Your task to perform on an android device: change the clock display to digital Image 0: 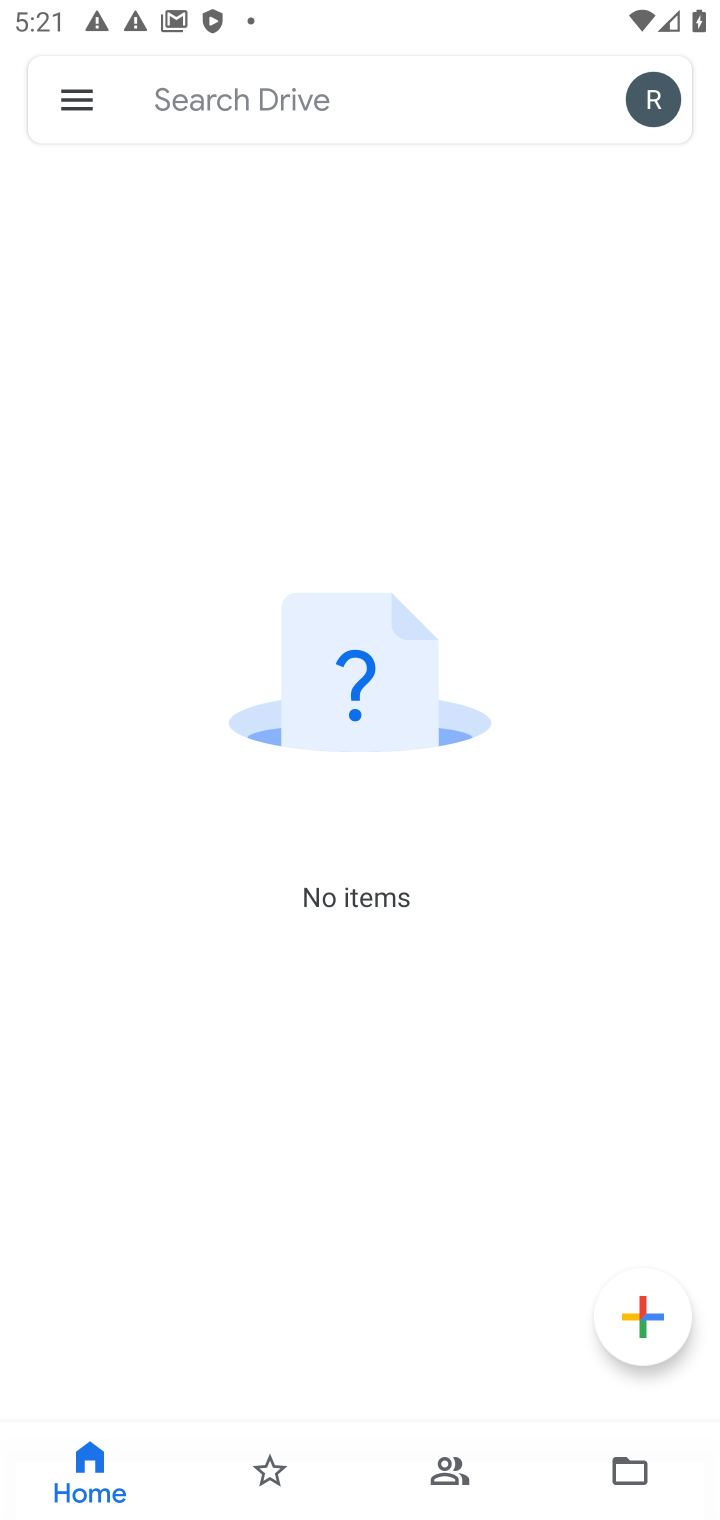
Step 0: press home button
Your task to perform on an android device: change the clock display to digital Image 1: 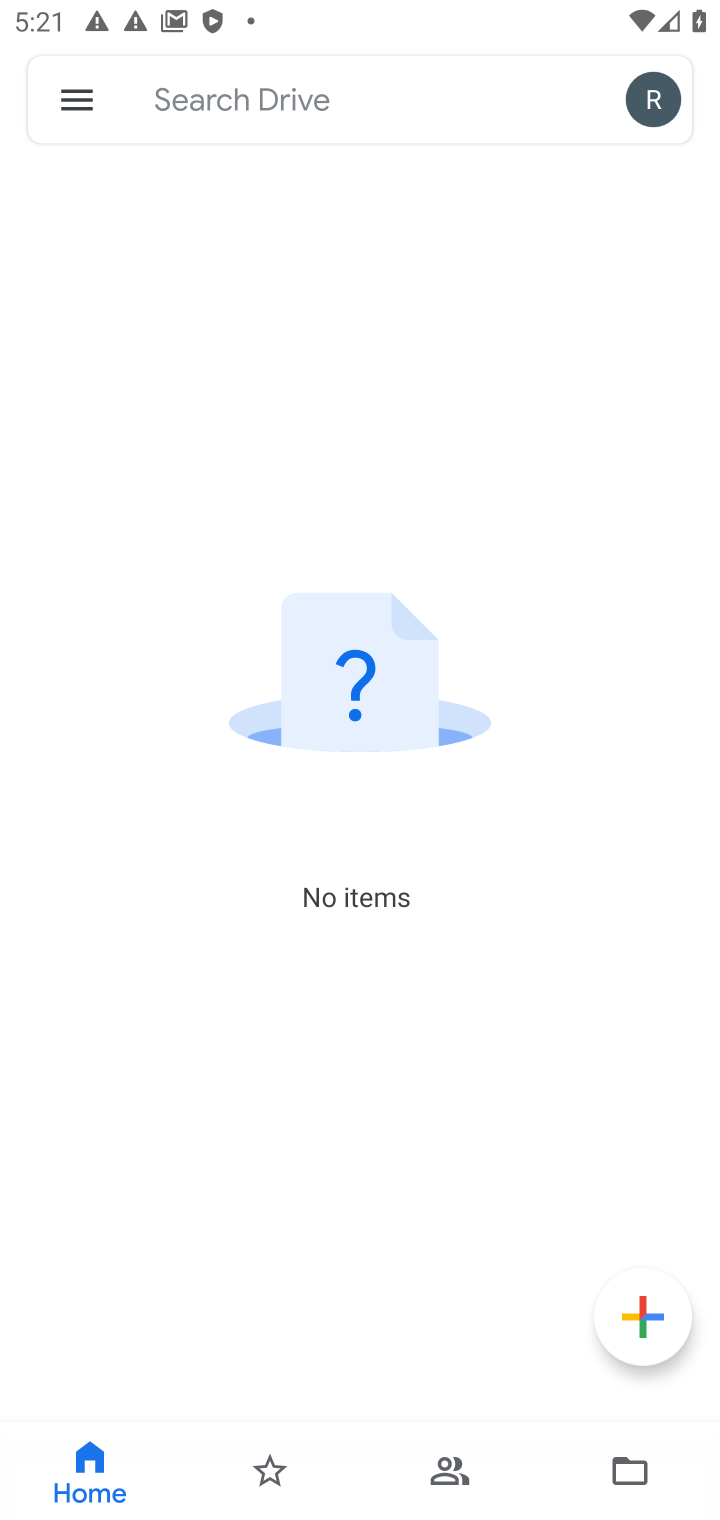
Step 1: press home button
Your task to perform on an android device: change the clock display to digital Image 2: 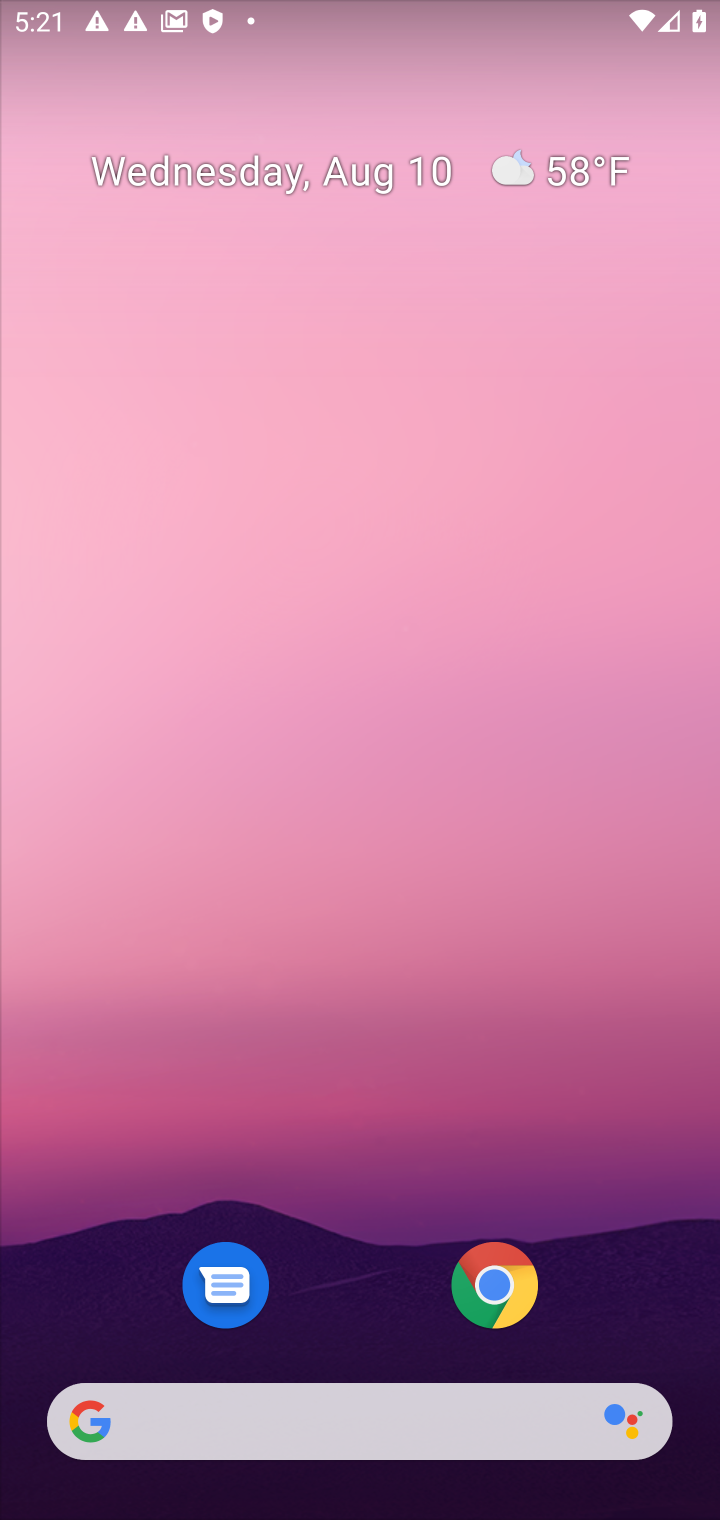
Step 2: drag from (377, 1245) to (296, 15)
Your task to perform on an android device: change the clock display to digital Image 3: 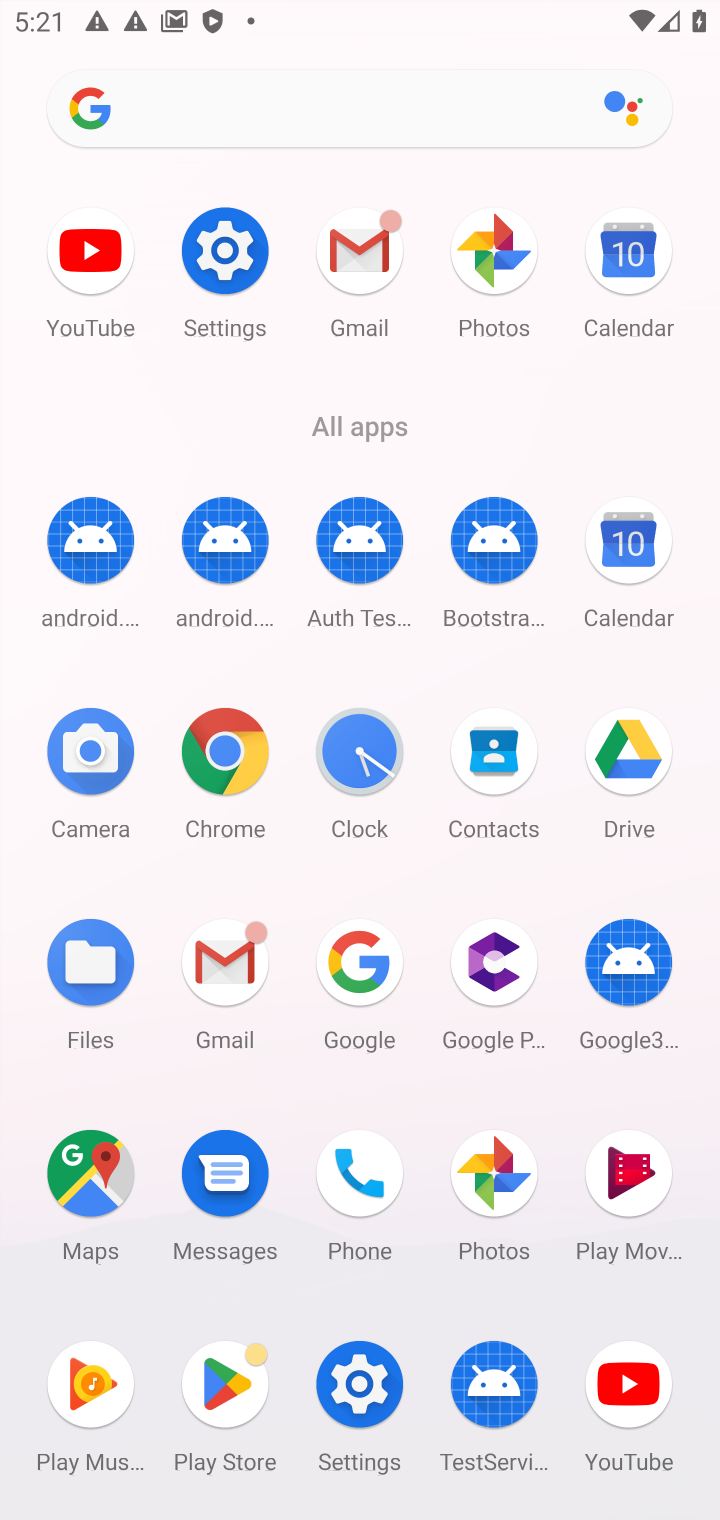
Step 3: click (370, 832)
Your task to perform on an android device: change the clock display to digital Image 4: 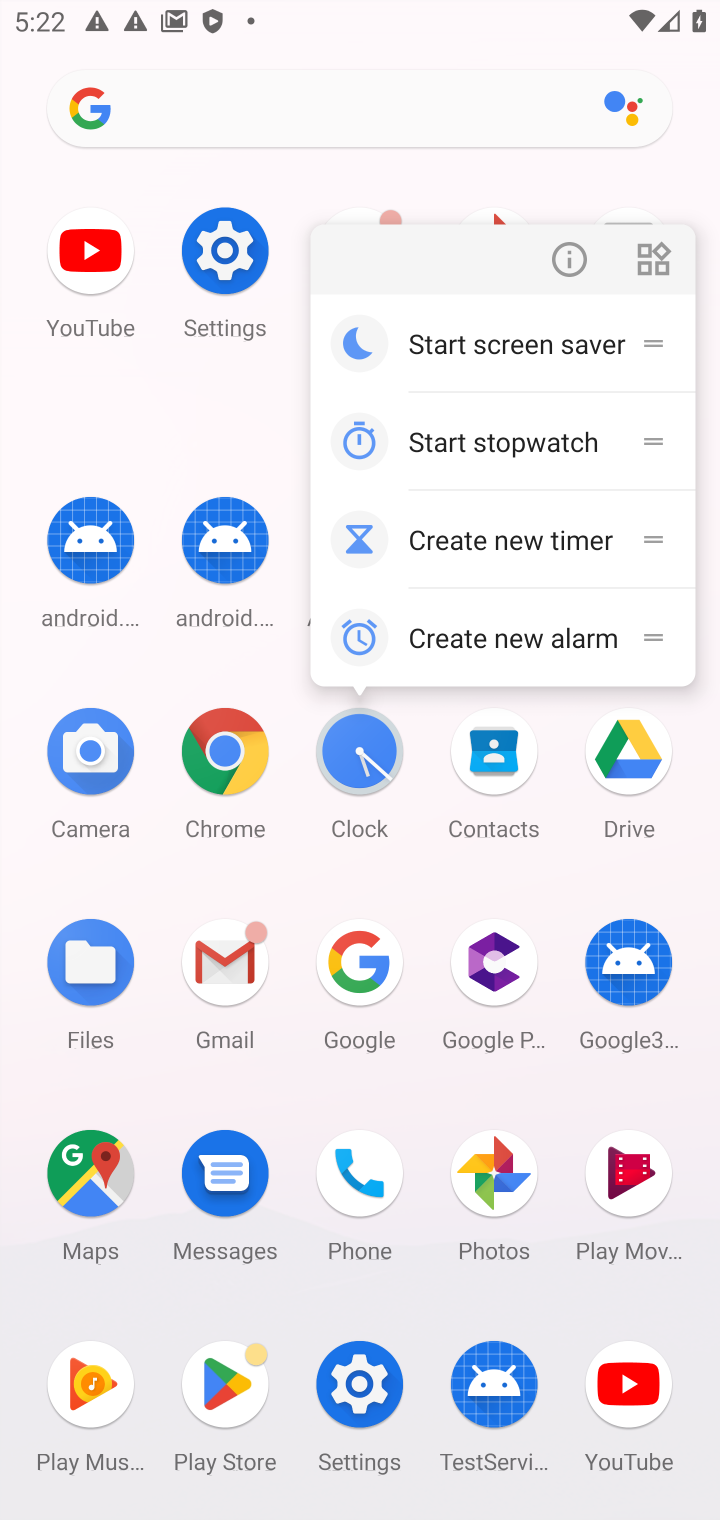
Step 4: click (313, 779)
Your task to perform on an android device: change the clock display to digital Image 5: 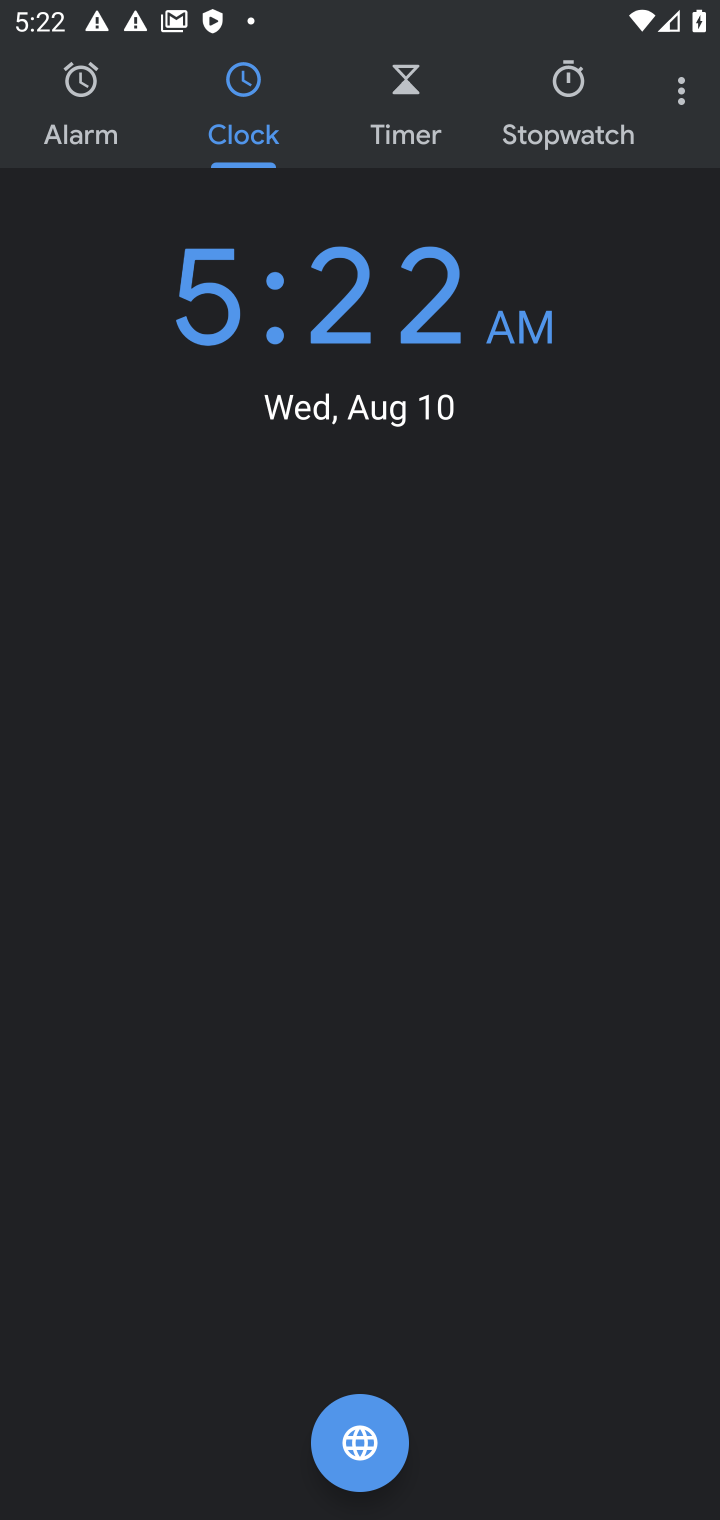
Step 5: click (676, 116)
Your task to perform on an android device: change the clock display to digital Image 6: 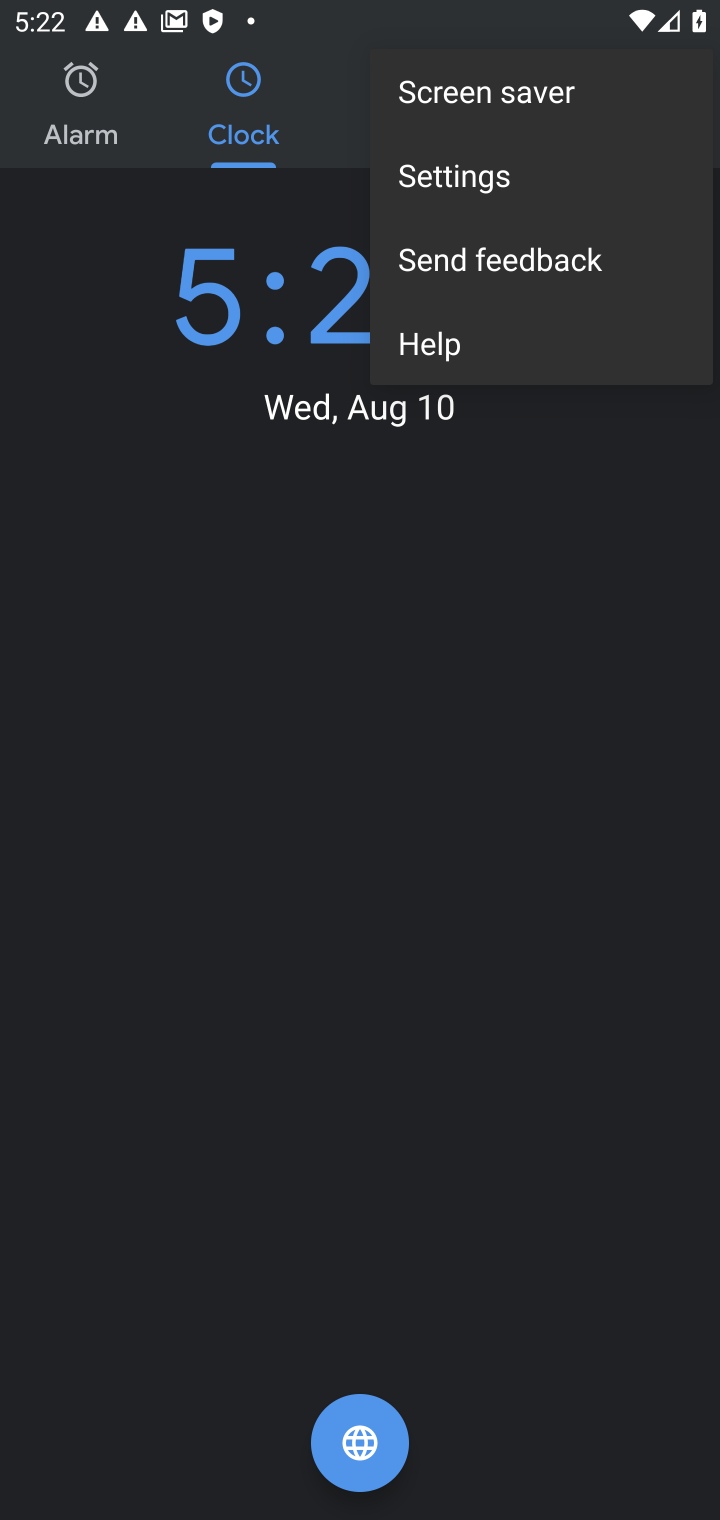
Step 6: click (416, 209)
Your task to perform on an android device: change the clock display to digital Image 7: 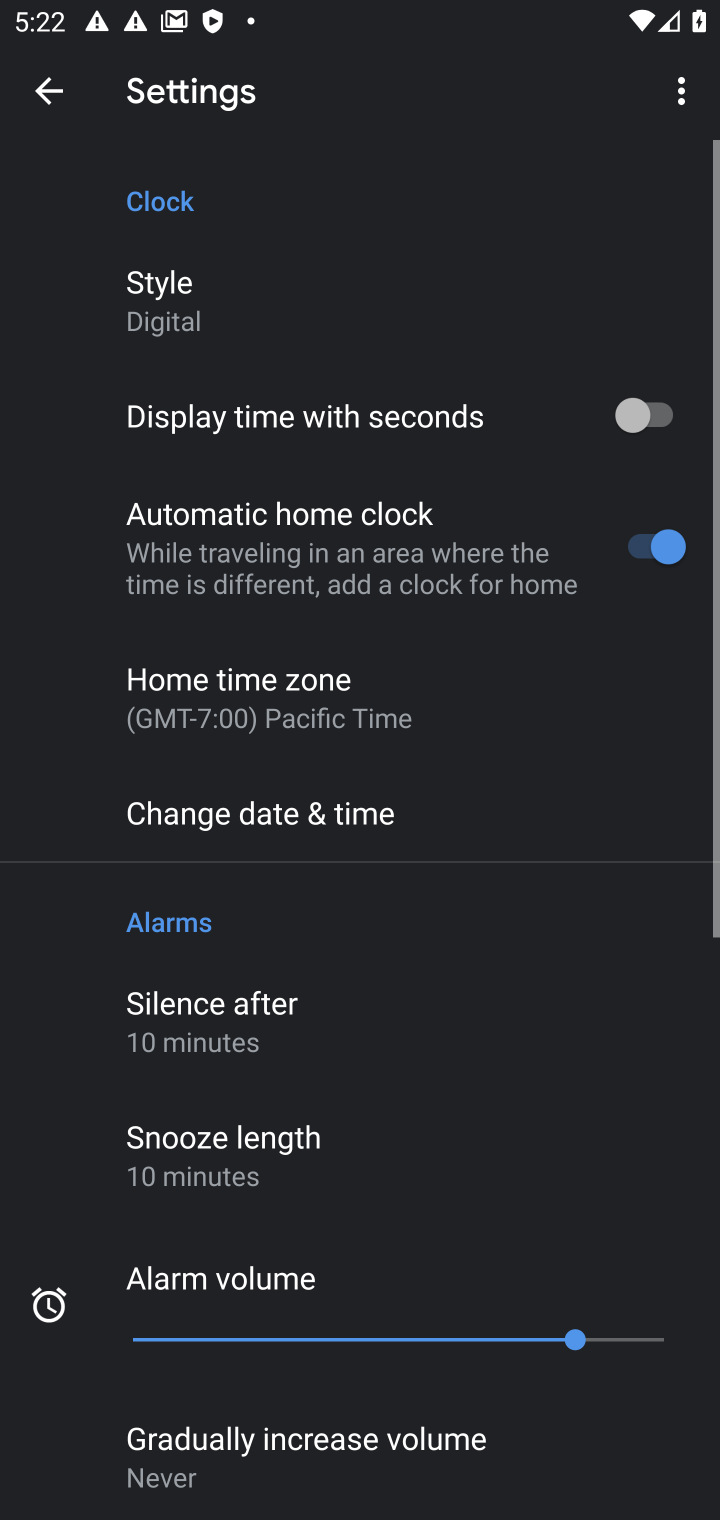
Step 7: click (196, 330)
Your task to perform on an android device: change the clock display to digital Image 8: 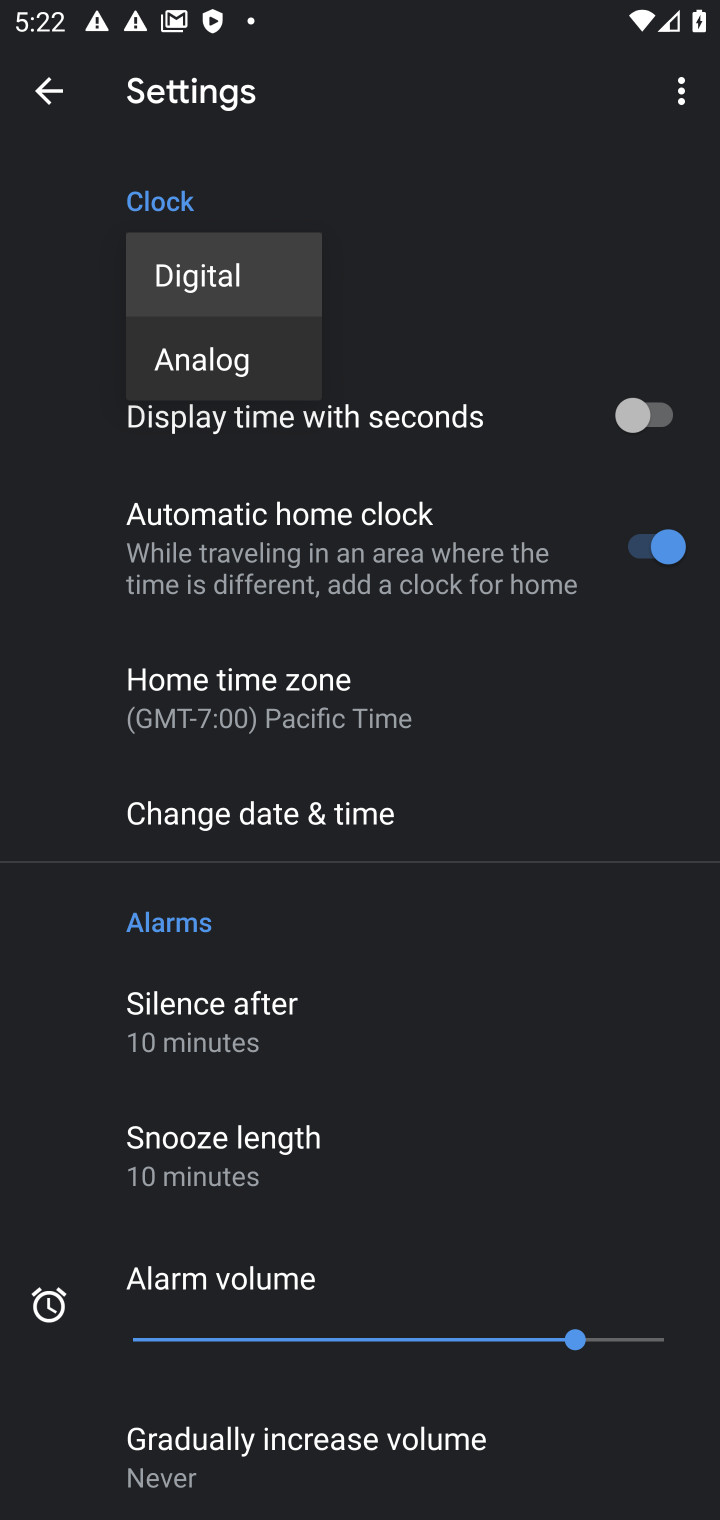
Step 8: click (181, 286)
Your task to perform on an android device: change the clock display to digital Image 9: 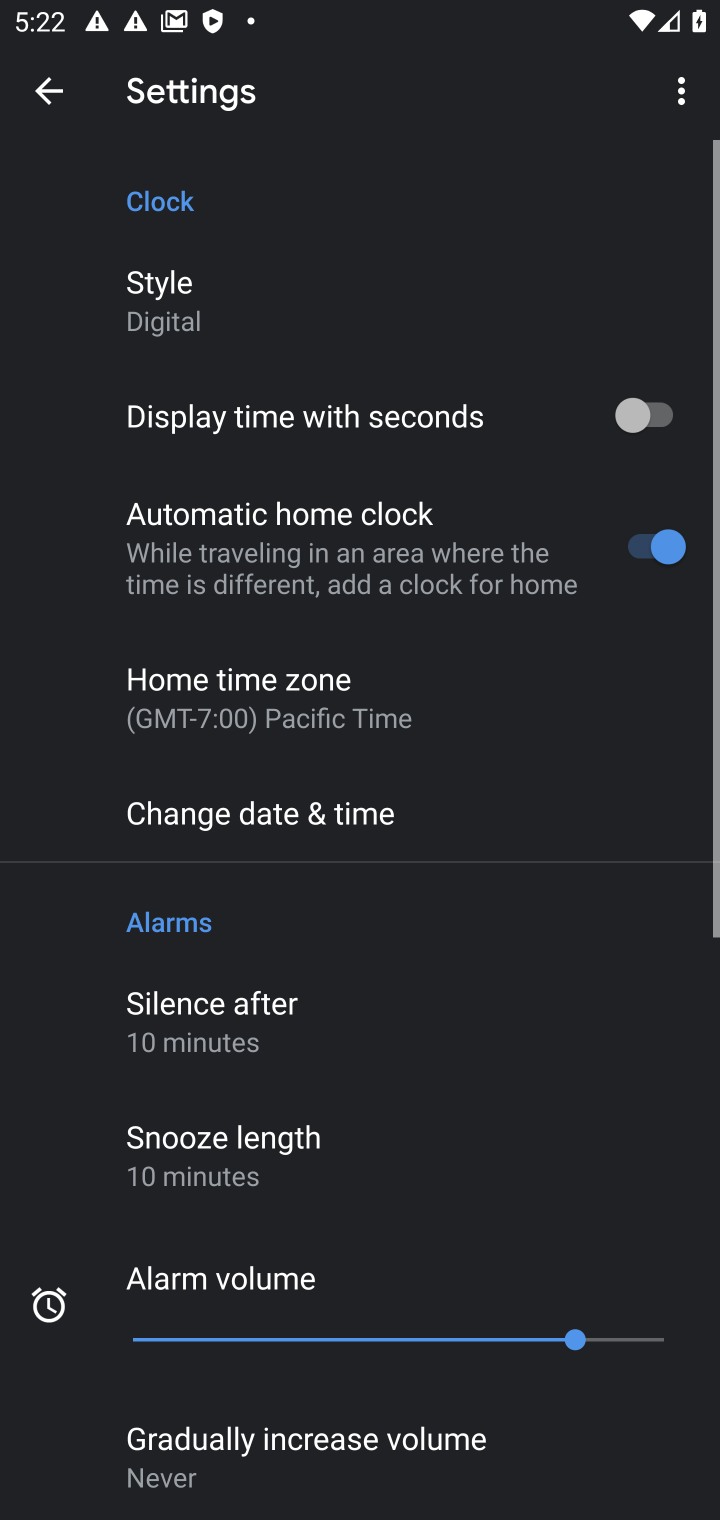
Step 9: task complete